Your task to perform on an android device: Open calendar and show me the fourth week of next month Image 0: 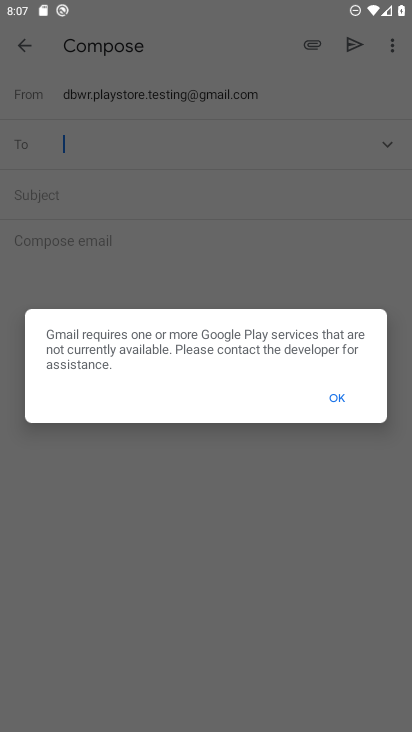
Step 0: press home button
Your task to perform on an android device: Open calendar and show me the fourth week of next month Image 1: 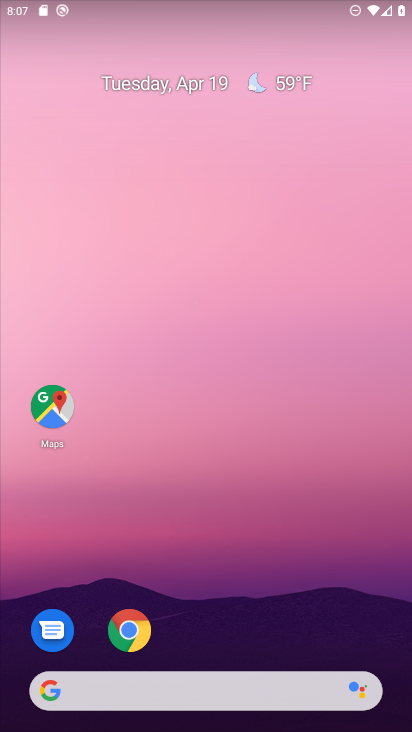
Step 1: drag from (176, 453) to (235, 3)
Your task to perform on an android device: Open calendar and show me the fourth week of next month Image 2: 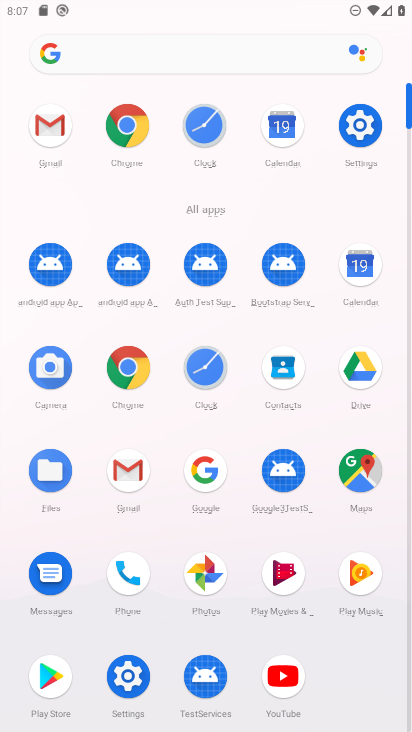
Step 2: click (353, 267)
Your task to perform on an android device: Open calendar and show me the fourth week of next month Image 3: 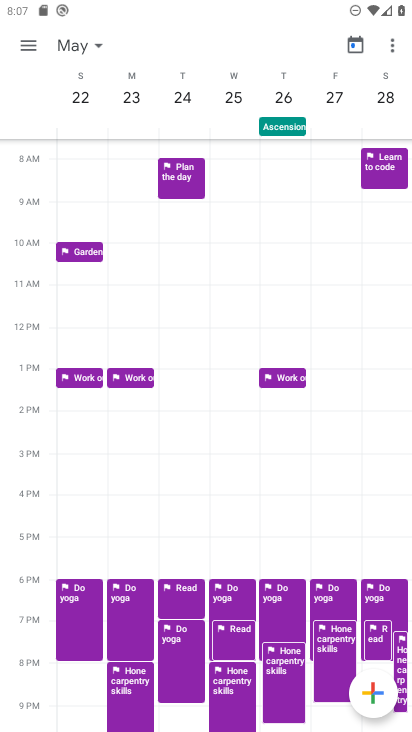
Step 3: task complete